Your task to perform on an android device: Open accessibility settings Image 0: 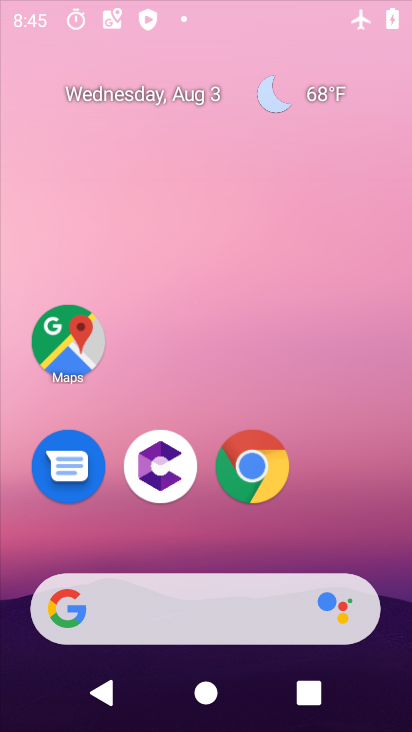
Step 0: drag from (343, 523) to (341, 127)
Your task to perform on an android device: Open accessibility settings Image 1: 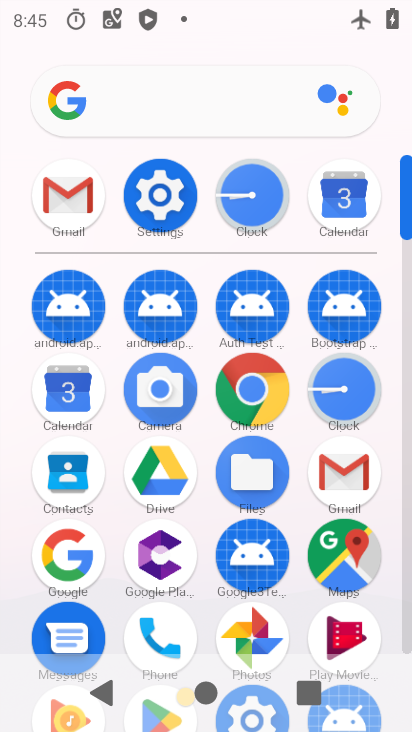
Step 1: click (171, 175)
Your task to perform on an android device: Open accessibility settings Image 2: 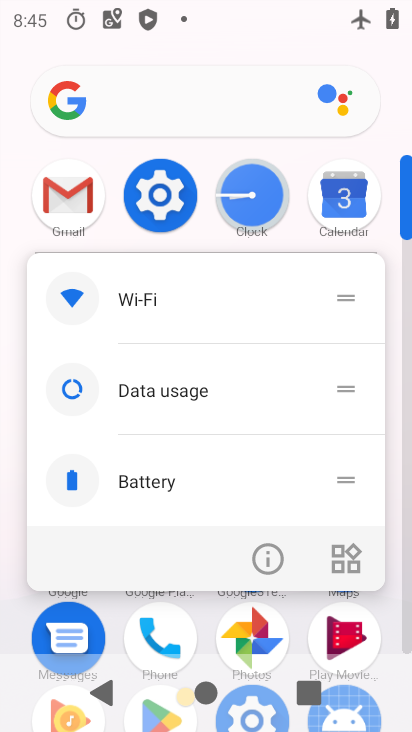
Step 2: click (159, 203)
Your task to perform on an android device: Open accessibility settings Image 3: 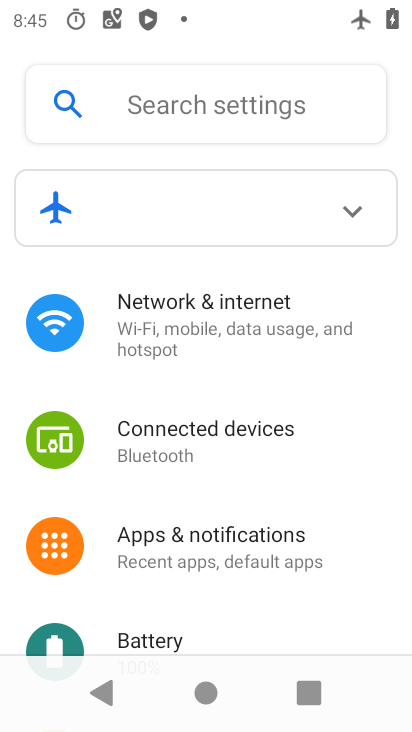
Step 3: drag from (215, 474) to (259, 25)
Your task to perform on an android device: Open accessibility settings Image 4: 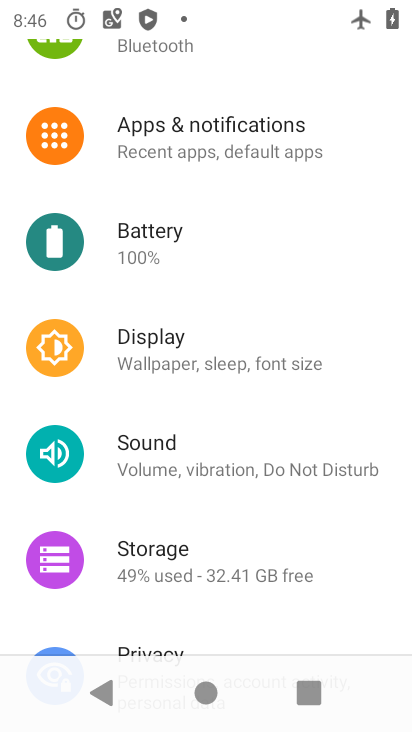
Step 4: drag from (248, 519) to (258, 110)
Your task to perform on an android device: Open accessibility settings Image 5: 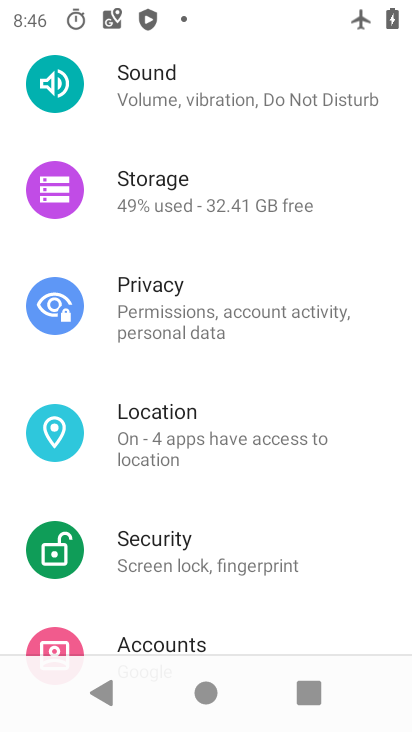
Step 5: drag from (202, 461) to (281, 127)
Your task to perform on an android device: Open accessibility settings Image 6: 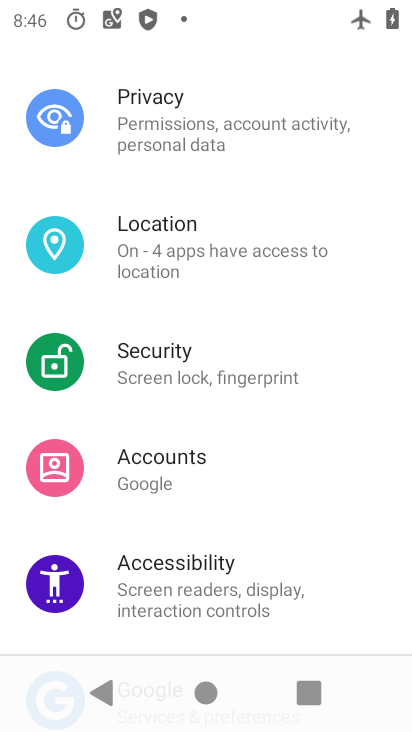
Step 6: click (202, 581)
Your task to perform on an android device: Open accessibility settings Image 7: 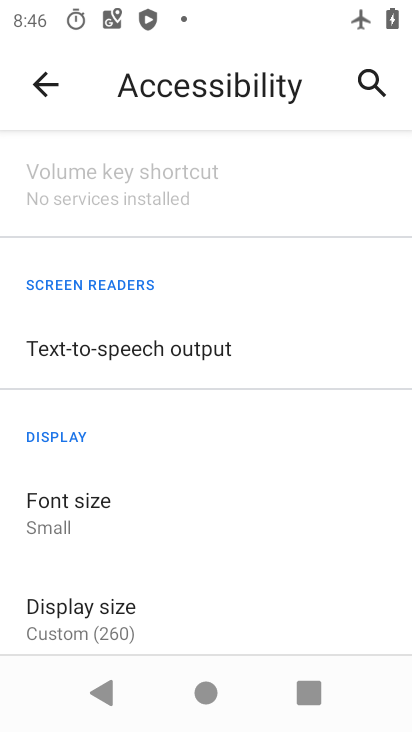
Step 7: task complete